Your task to perform on an android device: add a contact in the contacts app Image 0: 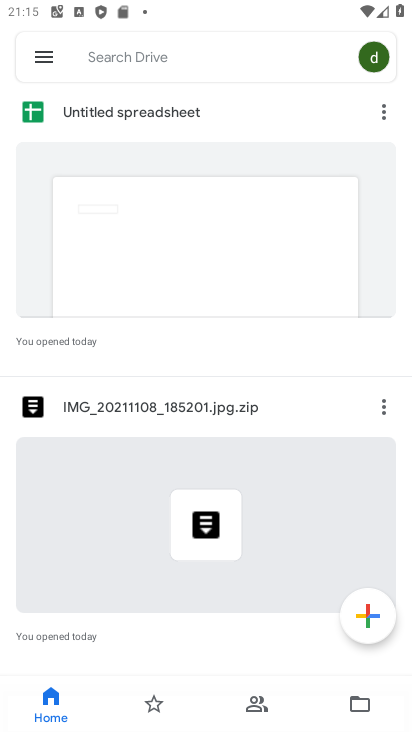
Step 0: press home button
Your task to perform on an android device: add a contact in the contacts app Image 1: 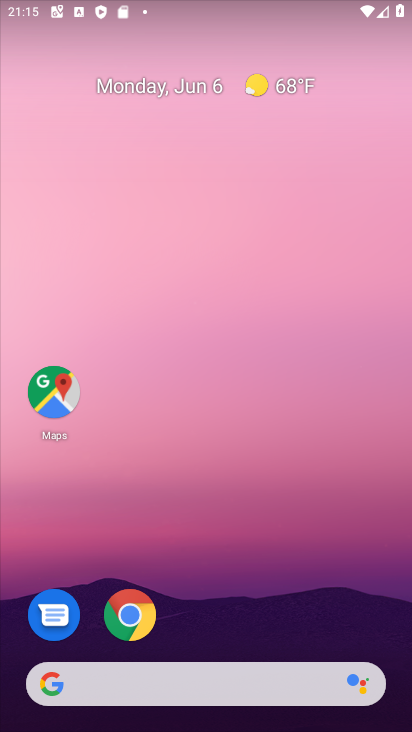
Step 1: drag from (401, 717) to (360, 4)
Your task to perform on an android device: add a contact in the contacts app Image 2: 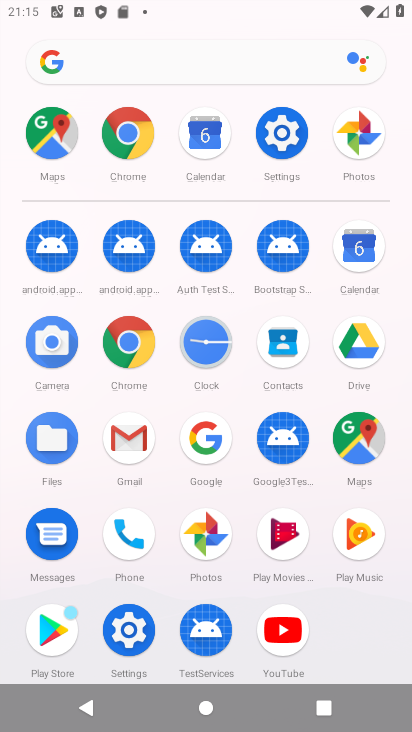
Step 2: click (269, 355)
Your task to perform on an android device: add a contact in the contacts app Image 3: 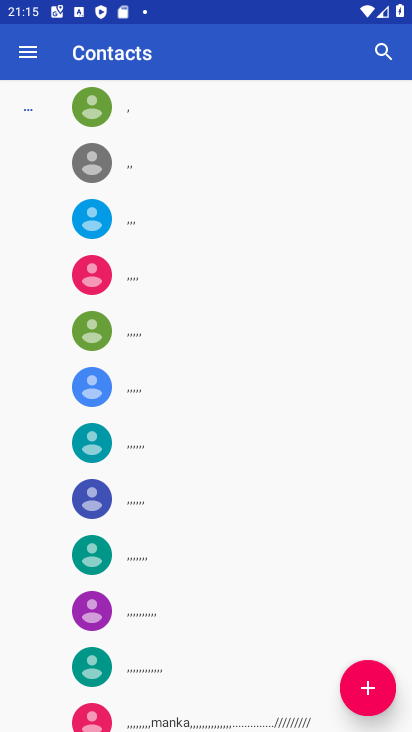
Step 3: click (376, 692)
Your task to perform on an android device: add a contact in the contacts app Image 4: 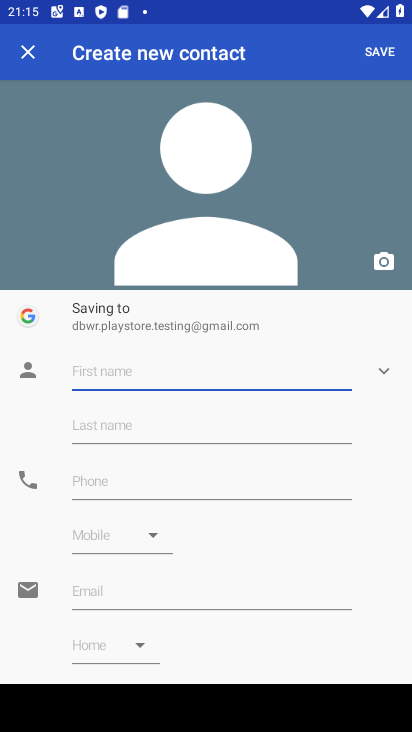
Step 4: type "hdjdjhcghdttfy"
Your task to perform on an android device: add a contact in the contacts app Image 5: 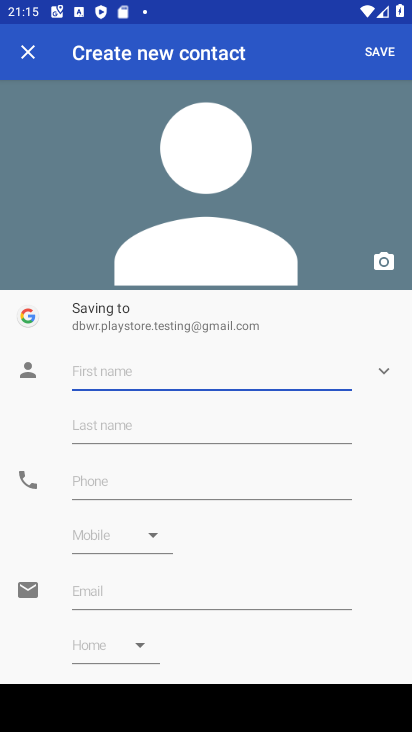
Step 5: click (153, 429)
Your task to perform on an android device: add a contact in the contacts app Image 6: 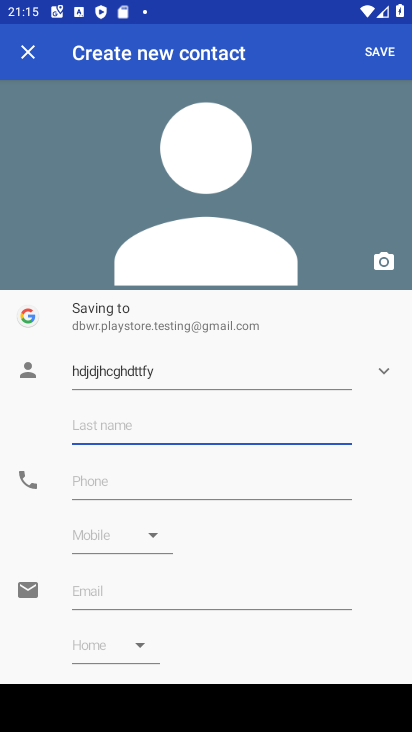
Step 6: type "rjrxhdyj"
Your task to perform on an android device: add a contact in the contacts app Image 7: 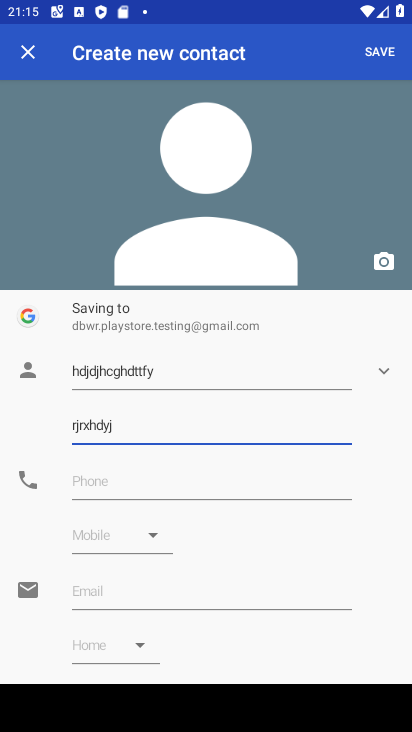
Step 7: click (268, 492)
Your task to perform on an android device: add a contact in the contacts app Image 8: 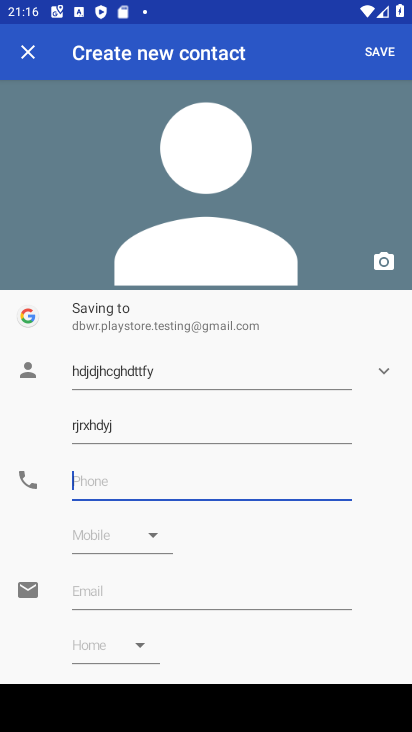
Step 8: type "5353763747356"
Your task to perform on an android device: add a contact in the contacts app Image 9: 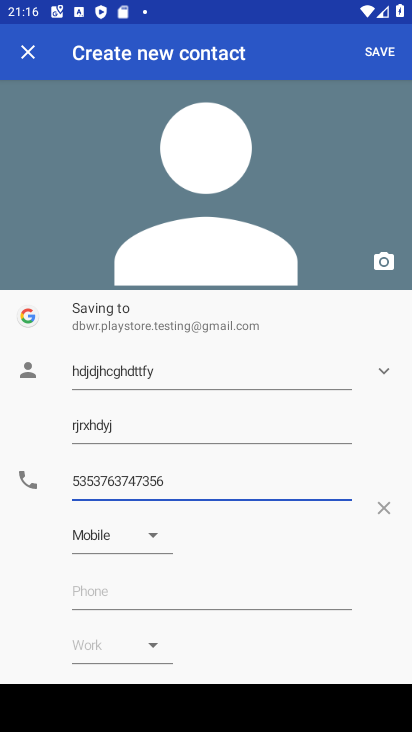
Step 9: click (389, 52)
Your task to perform on an android device: add a contact in the contacts app Image 10: 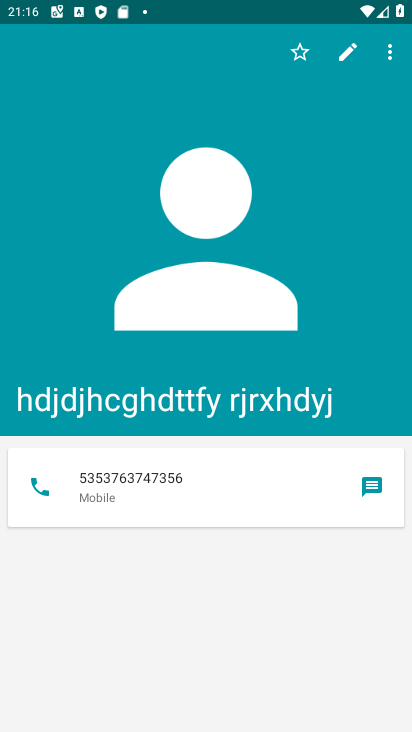
Step 10: task complete